Your task to perform on an android device: Open battery settings Image 0: 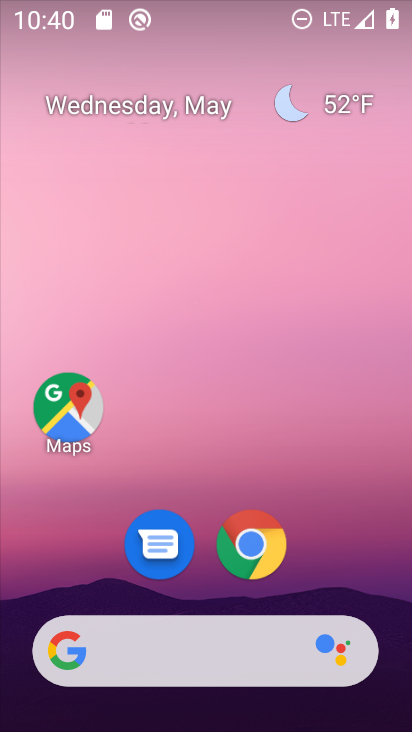
Step 0: drag from (233, 8) to (254, 532)
Your task to perform on an android device: Open battery settings Image 1: 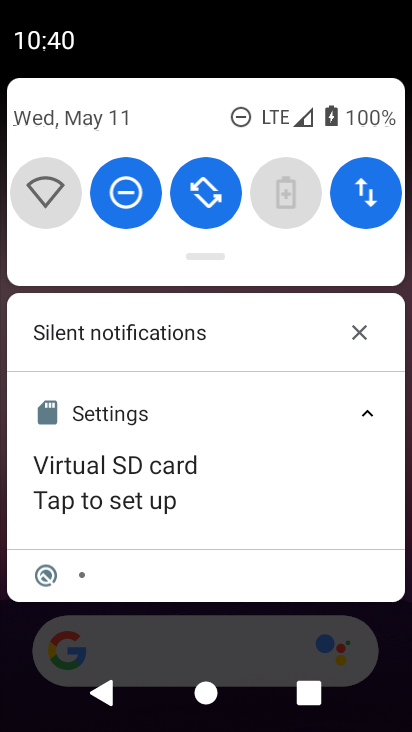
Step 1: drag from (265, 113) to (270, 537)
Your task to perform on an android device: Open battery settings Image 2: 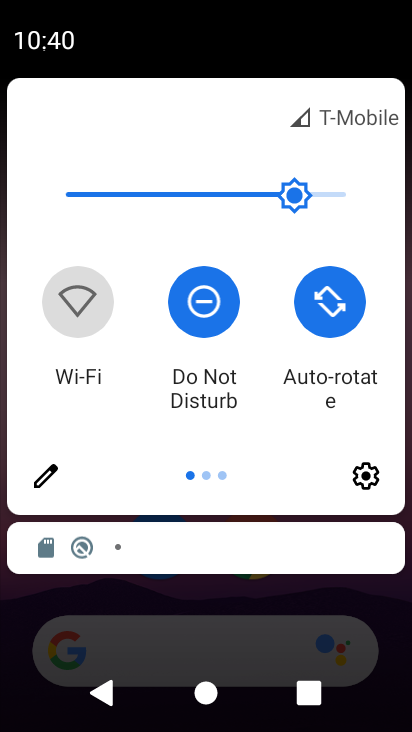
Step 2: click (382, 473)
Your task to perform on an android device: Open battery settings Image 3: 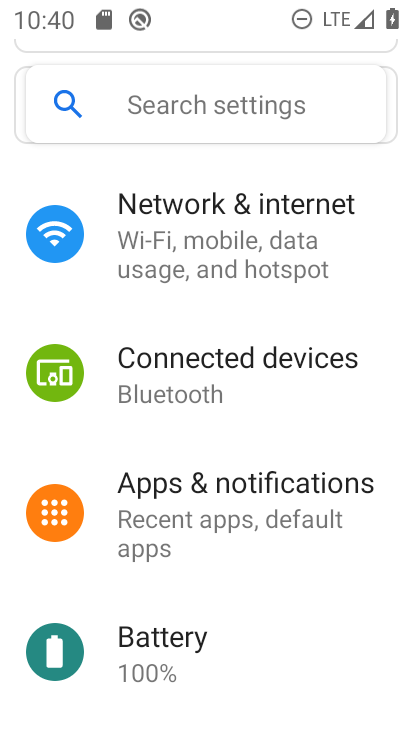
Step 3: click (140, 658)
Your task to perform on an android device: Open battery settings Image 4: 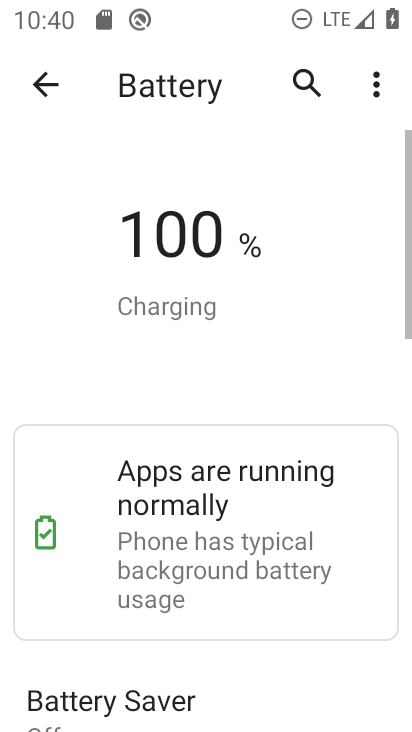
Step 4: task complete